Your task to perform on an android device: Open sound settings Image 0: 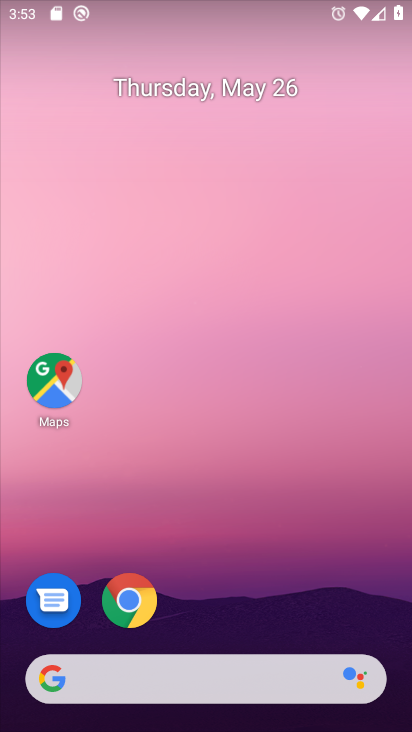
Step 0: drag from (239, 629) to (326, 119)
Your task to perform on an android device: Open sound settings Image 1: 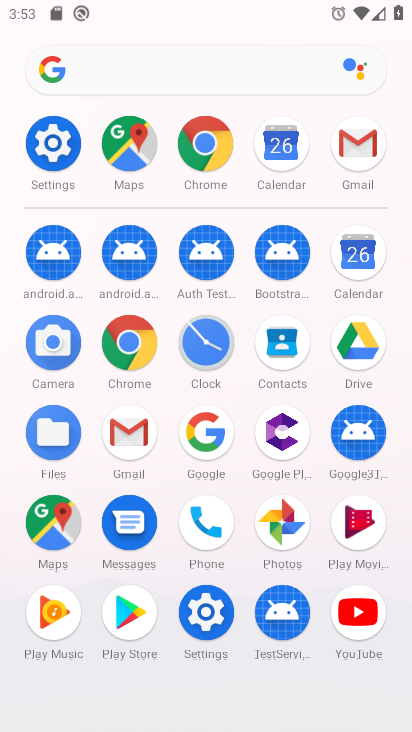
Step 1: click (56, 160)
Your task to perform on an android device: Open sound settings Image 2: 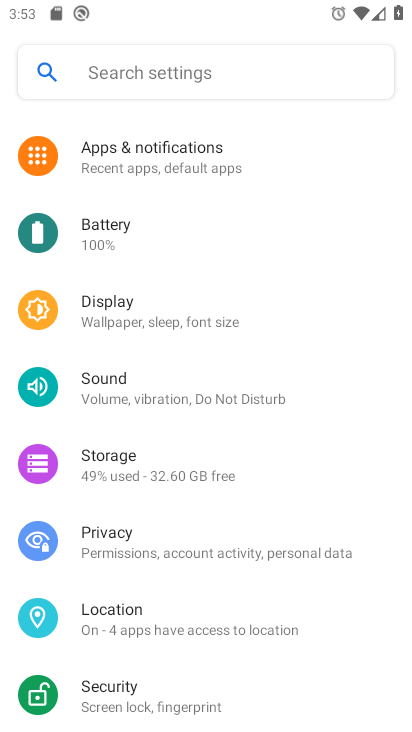
Step 2: click (178, 398)
Your task to perform on an android device: Open sound settings Image 3: 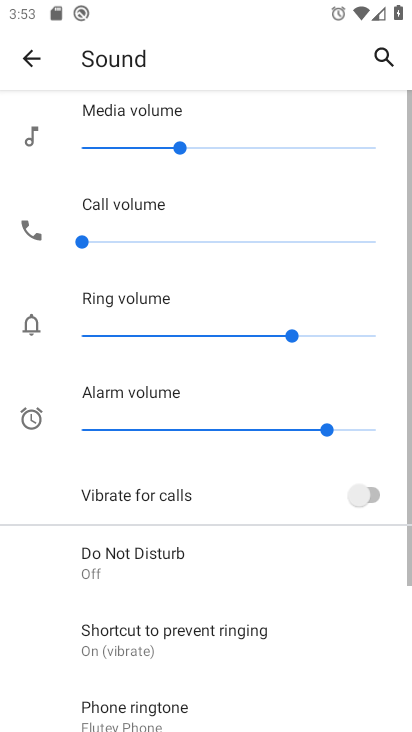
Step 3: task complete